Your task to perform on an android device: toggle sleep mode Image 0: 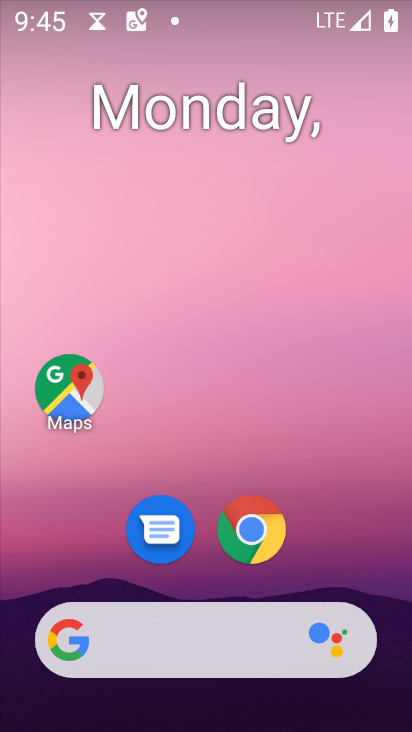
Step 0: drag from (278, 609) to (181, 63)
Your task to perform on an android device: toggle sleep mode Image 1: 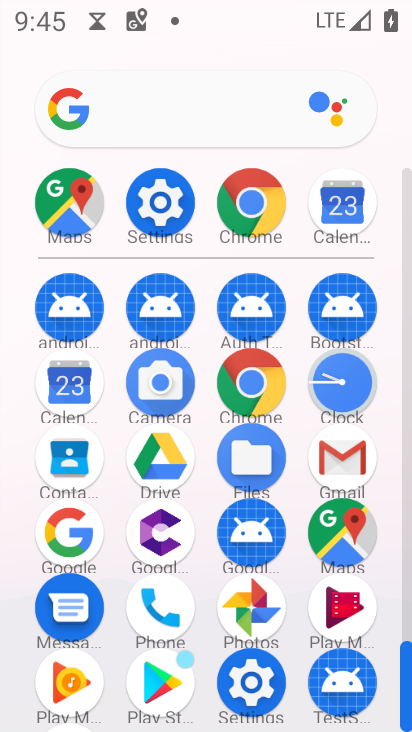
Step 1: click (159, 197)
Your task to perform on an android device: toggle sleep mode Image 2: 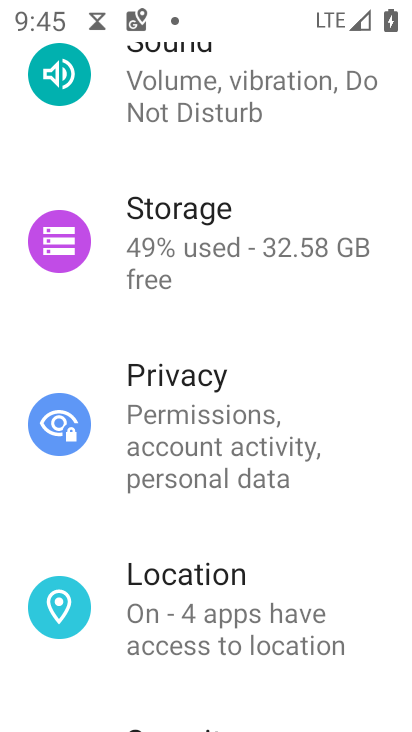
Step 2: drag from (234, 230) to (262, 464)
Your task to perform on an android device: toggle sleep mode Image 3: 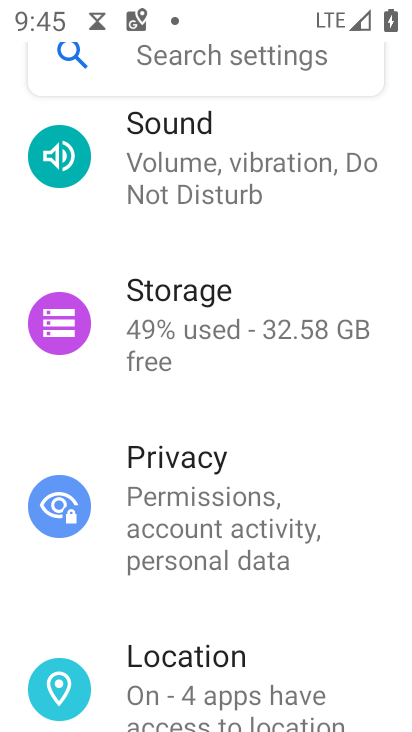
Step 3: drag from (213, 180) to (220, 555)
Your task to perform on an android device: toggle sleep mode Image 4: 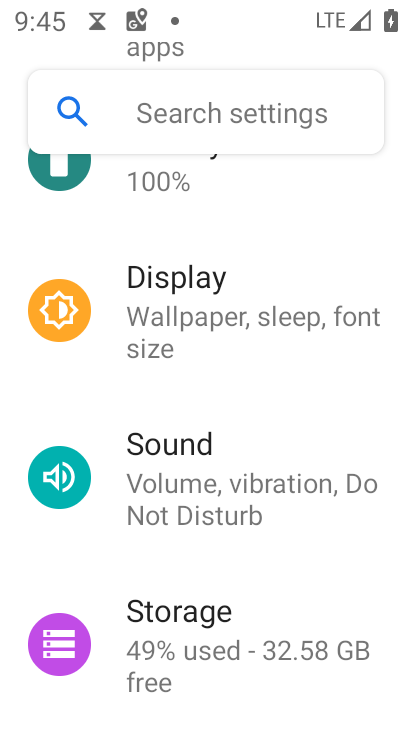
Step 4: click (189, 315)
Your task to perform on an android device: toggle sleep mode Image 5: 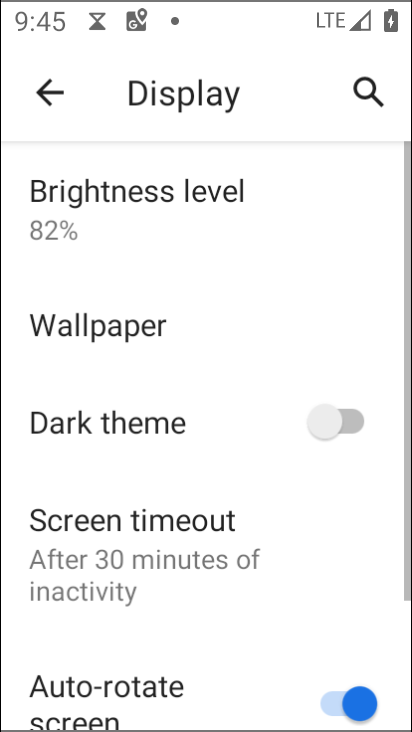
Step 5: click (252, 306)
Your task to perform on an android device: toggle sleep mode Image 6: 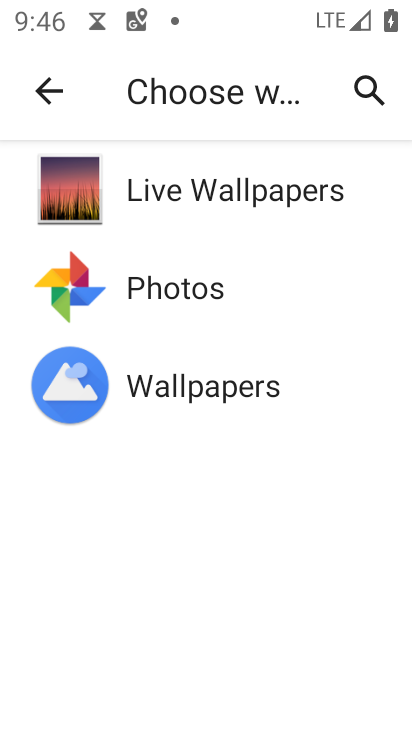
Step 6: click (53, 87)
Your task to perform on an android device: toggle sleep mode Image 7: 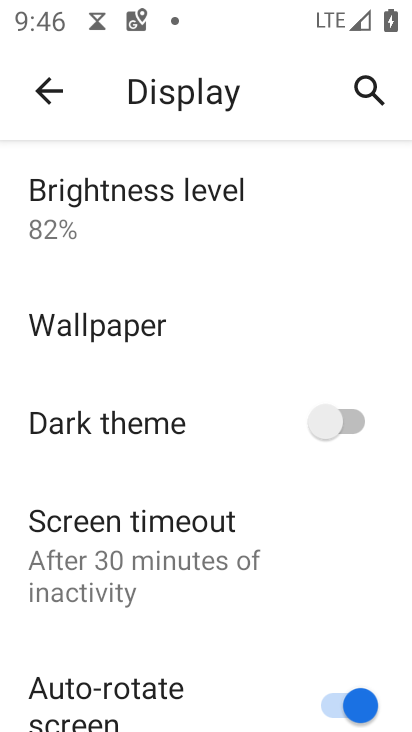
Step 7: click (52, 93)
Your task to perform on an android device: toggle sleep mode Image 8: 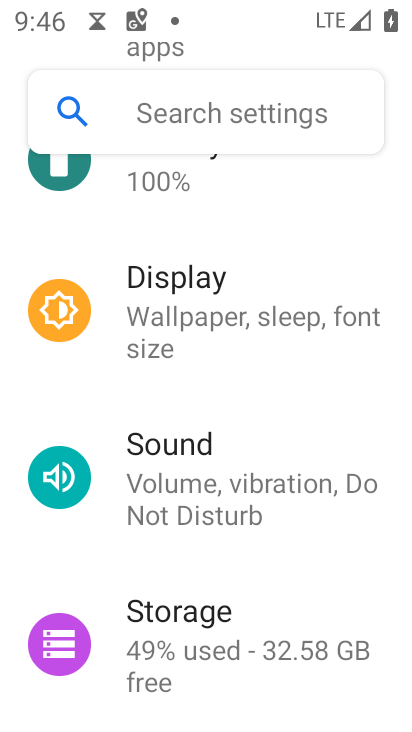
Step 8: click (174, 337)
Your task to perform on an android device: toggle sleep mode Image 9: 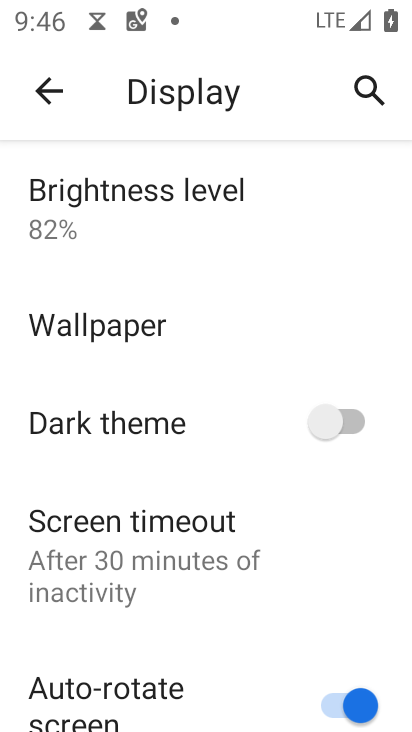
Step 9: click (104, 558)
Your task to perform on an android device: toggle sleep mode Image 10: 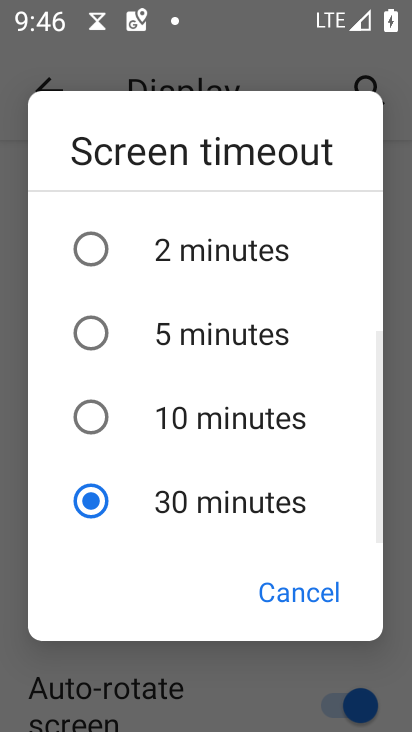
Step 10: click (82, 417)
Your task to perform on an android device: toggle sleep mode Image 11: 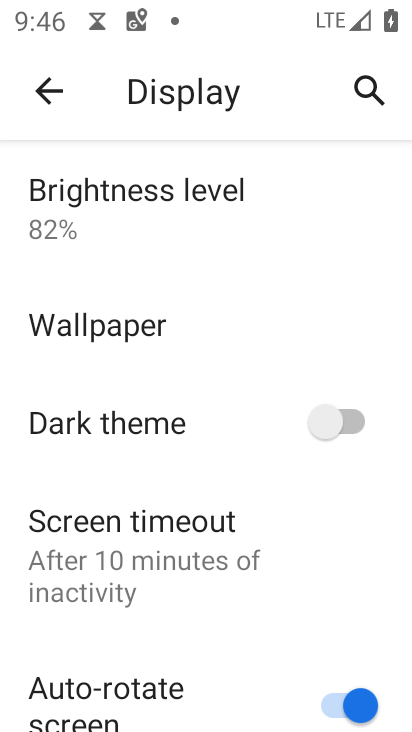
Step 11: task complete